Your task to perform on an android device: turn on notifications settings in the gmail app Image 0: 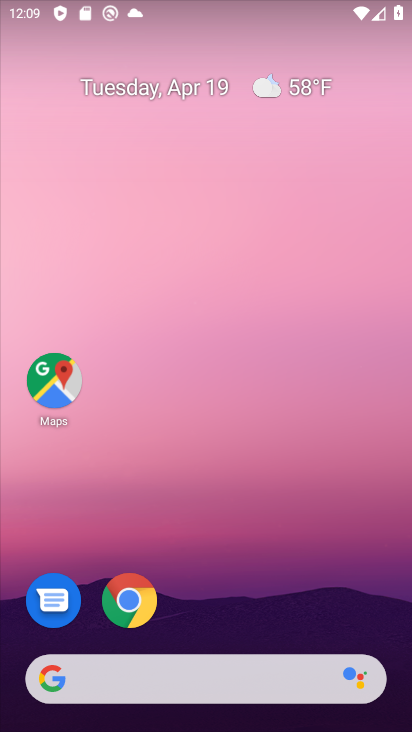
Step 0: drag from (295, 682) to (10, 396)
Your task to perform on an android device: turn on notifications settings in the gmail app Image 1: 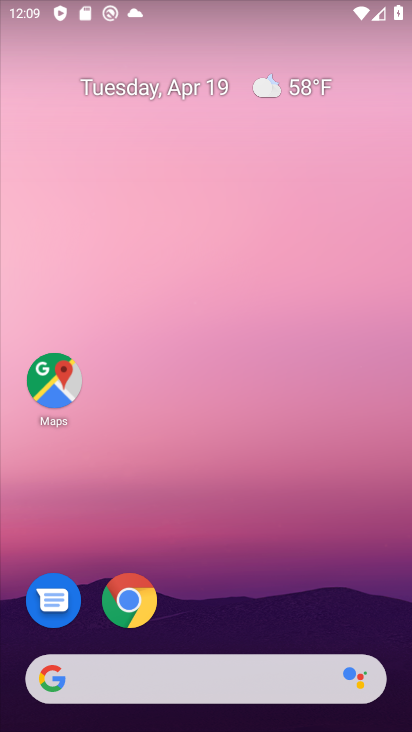
Step 1: drag from (263, 696) to (378, 195)
Your task to perform on an android device: turn on notifications settings in the gmail app Image 2: 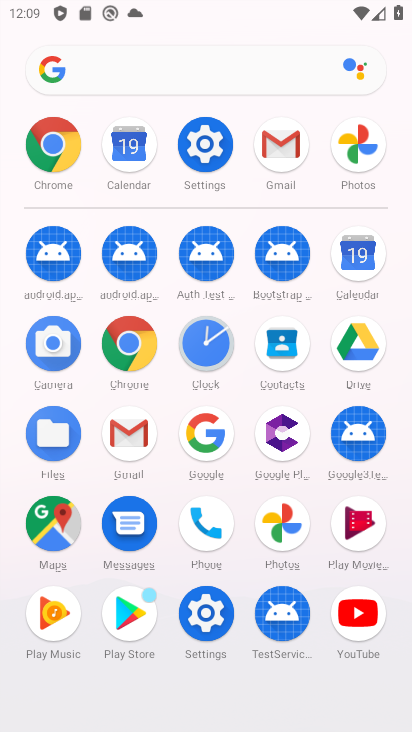
Step 2: click (286, 142)
Your task to perform on an android device: turn on notifications settings in the gmail app Image 3: 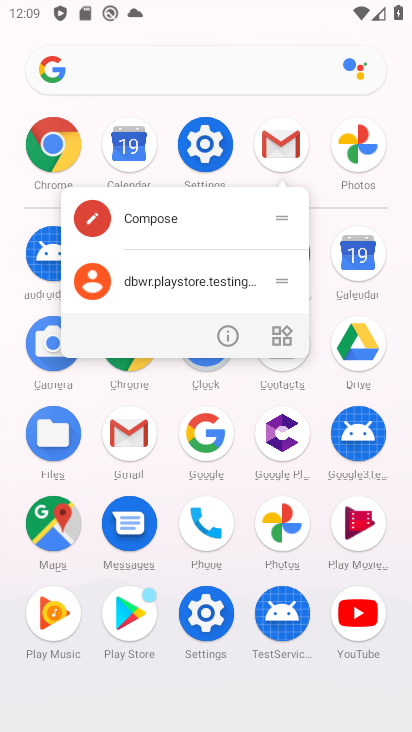
Step 3: click (286, 146)
Your task to perform on an android device: turn on notifications settings in the gmail app Image 4: 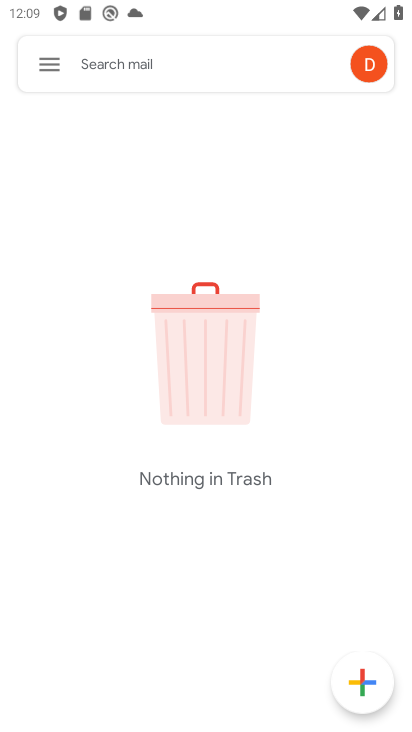
Step 4: click (69, 60)
Your task to perform on an android device: turn on notifications settings in the gmail app Image 5: 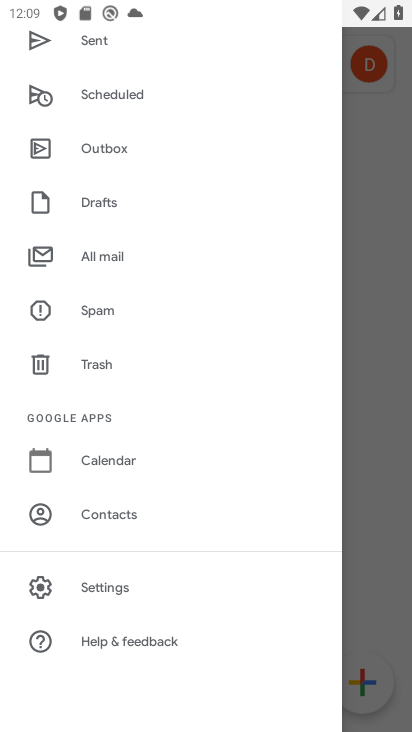
Step 5: click (82, 593)
Your task to perform on an android device: turn on notifications settings in the gmail app Image 6: 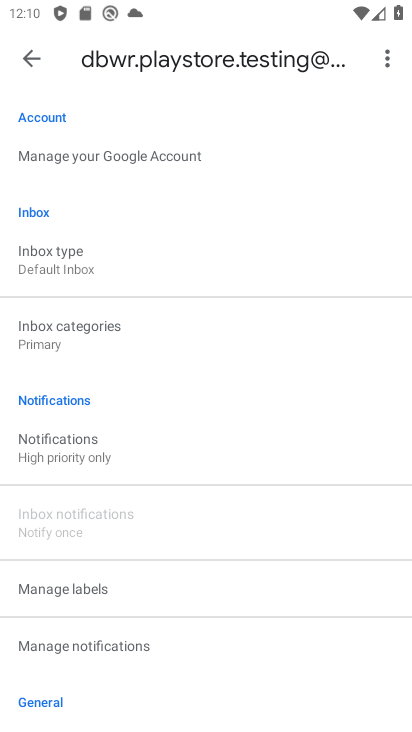
Step 6: click (79, 442)
Your task to perform on an android device: turn on notifications settings in the gmail app Image 7: 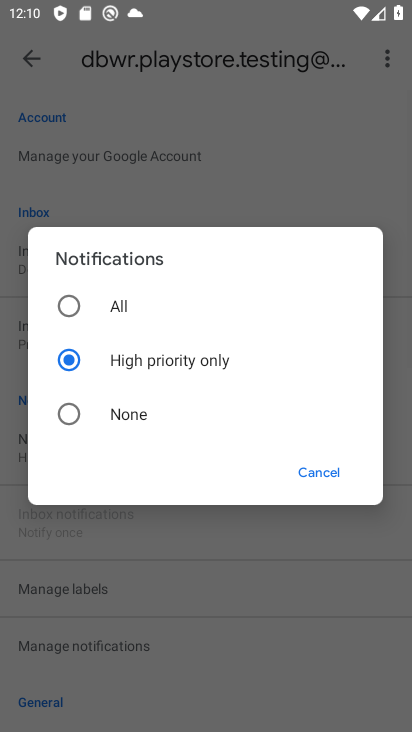
Step 7: click (111, 297)
Your task to perform on an android device: turn on notifications settings in the gmail app Image 8: 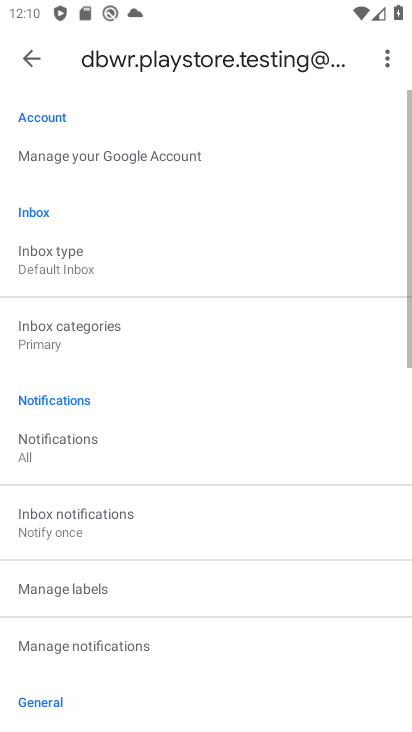
Step 8: task complete